Your task to perform on an android device: Open Youtube and go to "Your channel" Image 0: 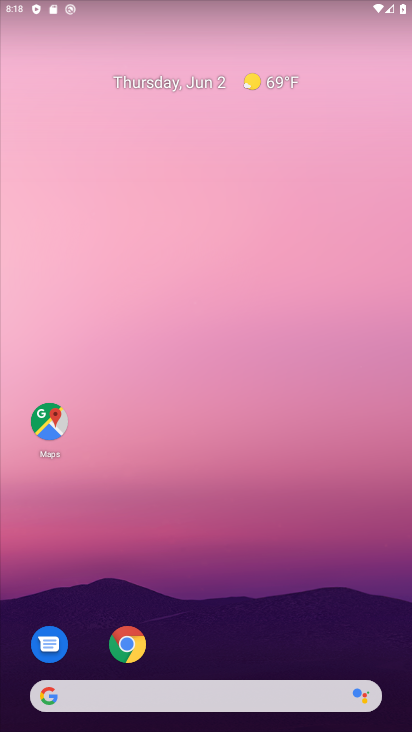
Step 0: drag from (216, 555) to (97, 24)
Your task to perform on an android device: Open Youtube and go to "Your channel" Image 1: 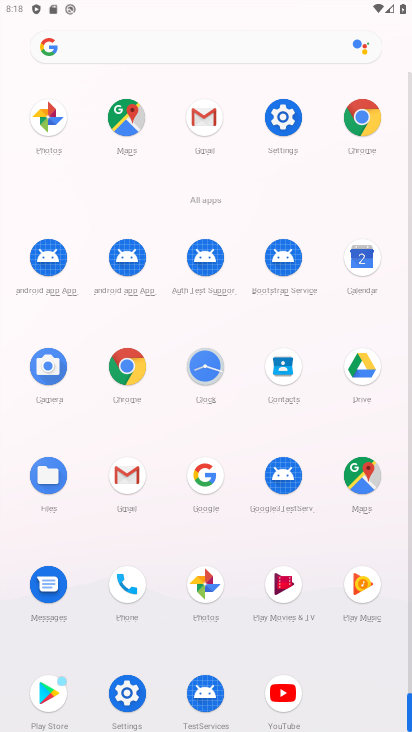
Step 1: click (284, 692)
Your task to perform on an android device: Open Youtube and go to "Your channel" Image 2: 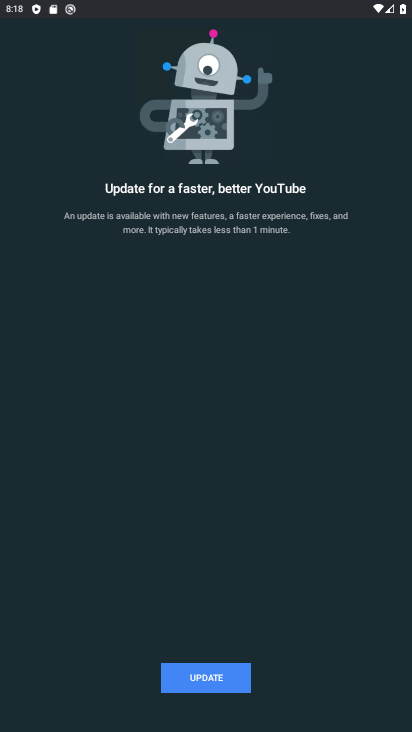
Step 2: click (202, 683)
Your task to perform on an android device: Open Youtube and go to "Your channel" Image 3: 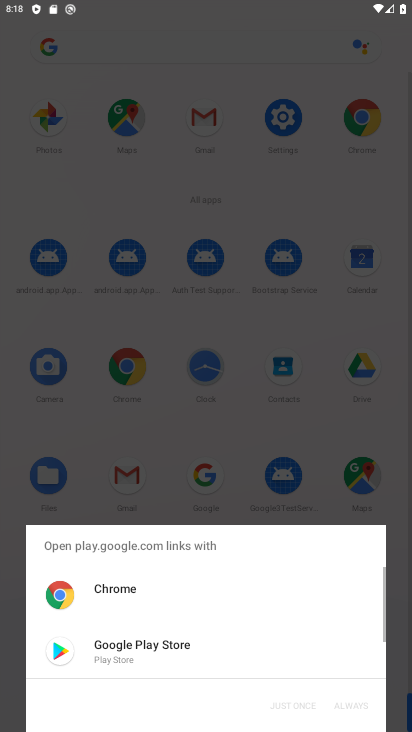
Step 3: click (166, 651)
Your task to perform on an android device: Open Youtube and go to "Your channel" Image 4: 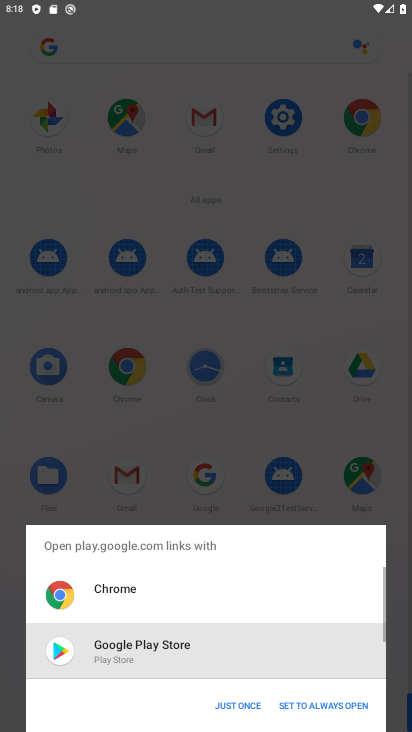
Step 4: click (217, 703)
Your task to perform on an android device: Open Youtube and go to "Your channel" Image 5: 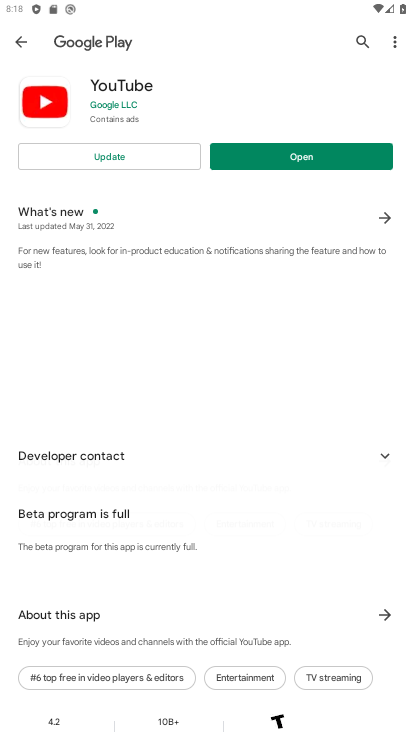
Step 5: click (139, 162)
Your task to perform on an android device: Open Youtube and go to "Your channel" Image 6: 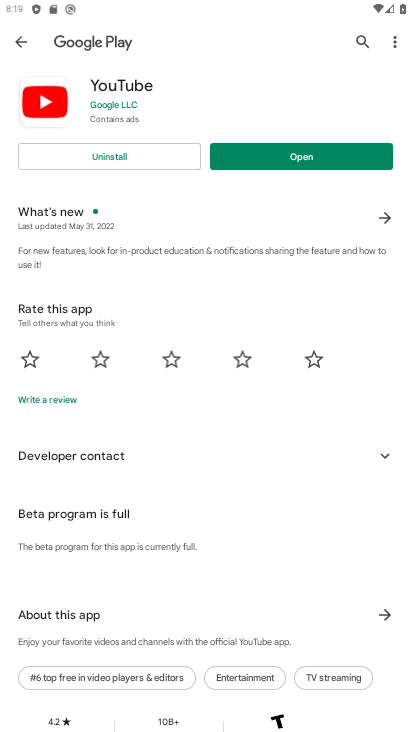
Step 6: click (285, 159)
Your task to perform on an android device: Open Youtube and go to "Your channel" Image 7: 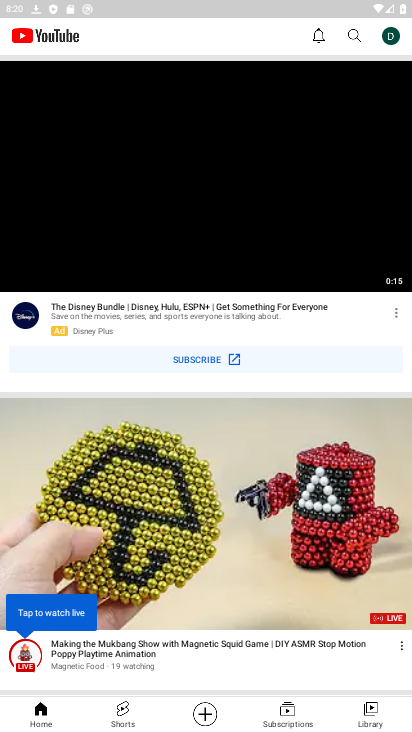
Step 7: click (376, 720)
Your task to perform on an android device: Open Youtube and go to "Your channel" Image 8: 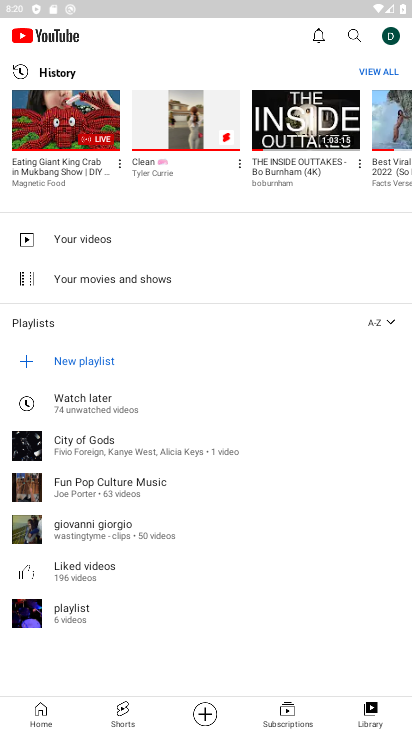
Step 8: click (104, 235)
Your task to perform on an android device: Open Youtube and go to "Your channel" Image 9: 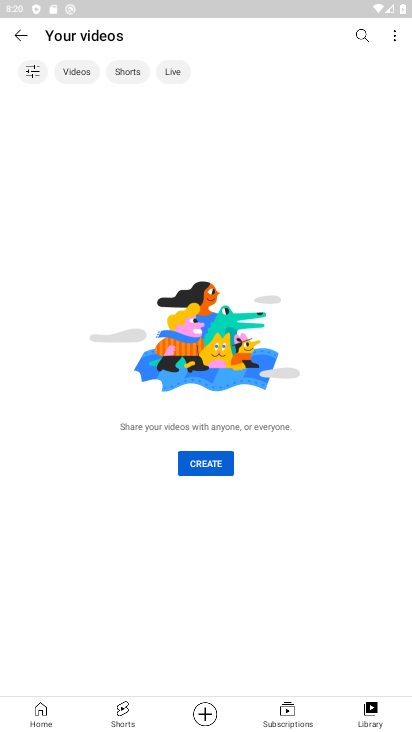
Step 9: task complete